Your task to perform on an android device: remove spam from my inbox in the gmail app Image 0: 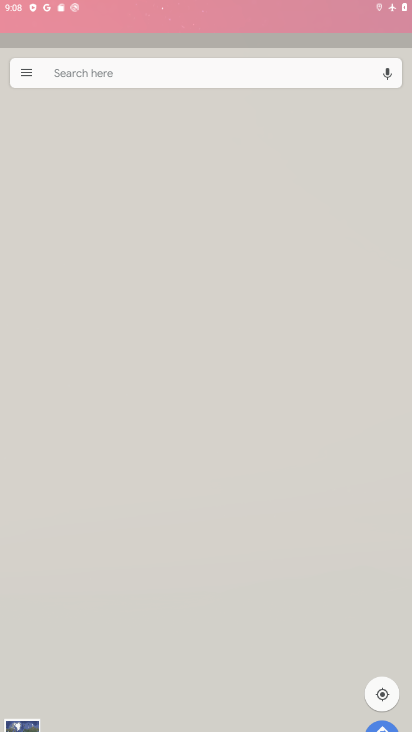
Step 0: press home button
Your task to perform on an android device: remove spam from my inbox in the gmail app Image 1: 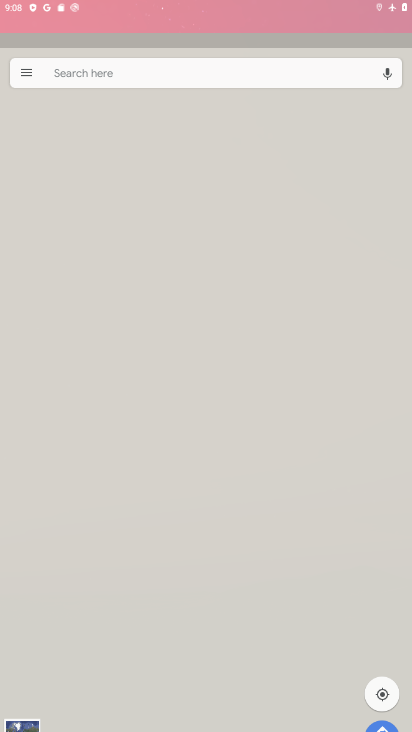
Step 1: click (257, 72)
Your task to perform on an android device: remove spam from my inbox in the gmail app Image 2: 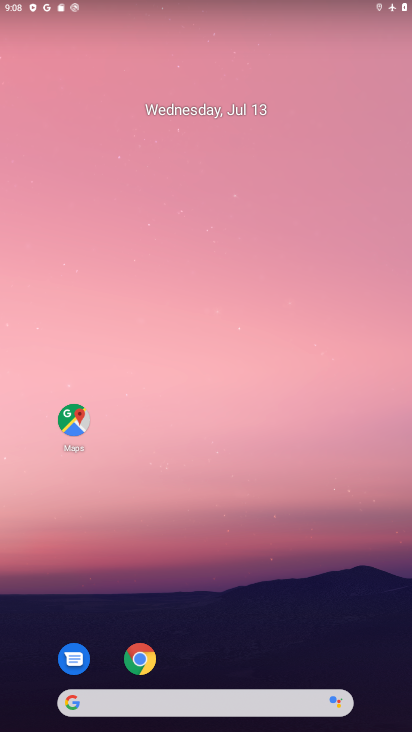
Step 2: drag from (219, 647) to (187, 276)
Your task to perform on an android device: remove spam from my inbox in the gmail app Image 3: 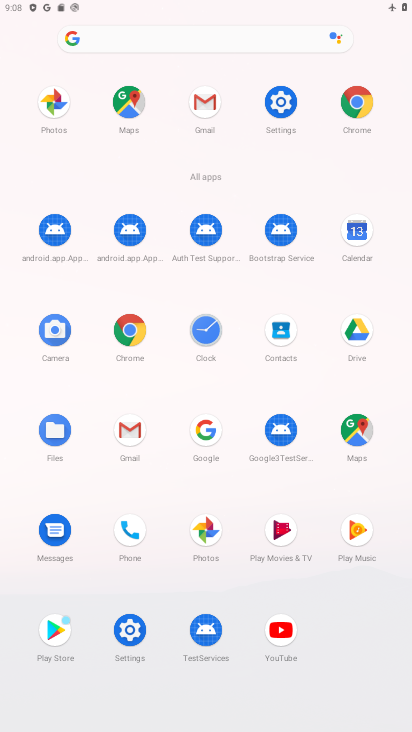
Step 3: click (125, 437)
Your task to perform on an android device: remove spam from my inbox in the gmail app Image 4: 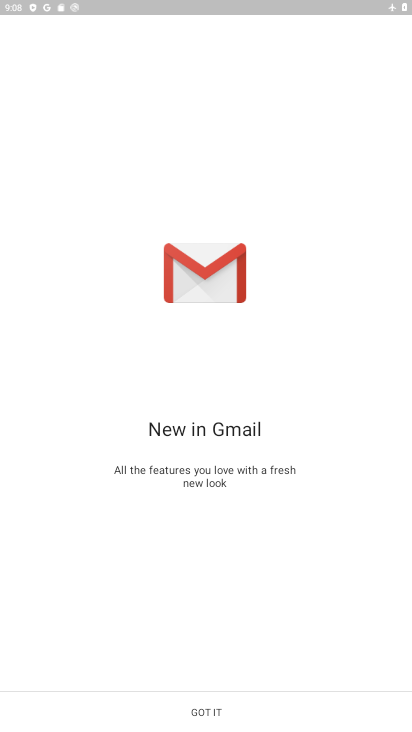
Step 4: click (212, 714)
Your task to perform on an android device: remove spam from my inbox in the gmail app Image 5: 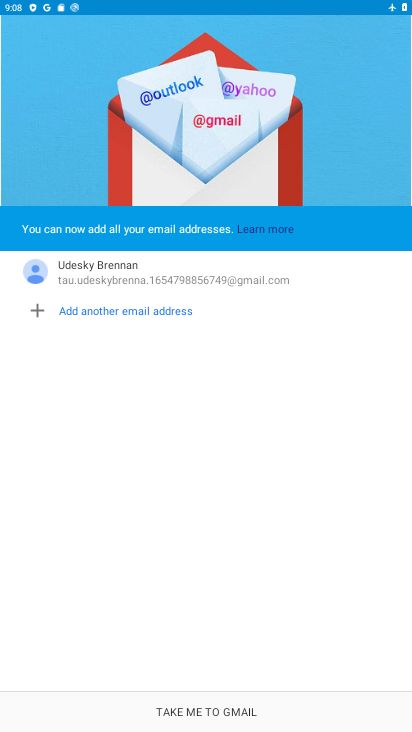
Step 5: click (212, 714)
Your task to perform on an android device: remove spam from my inbox in the gmail app Image 6: 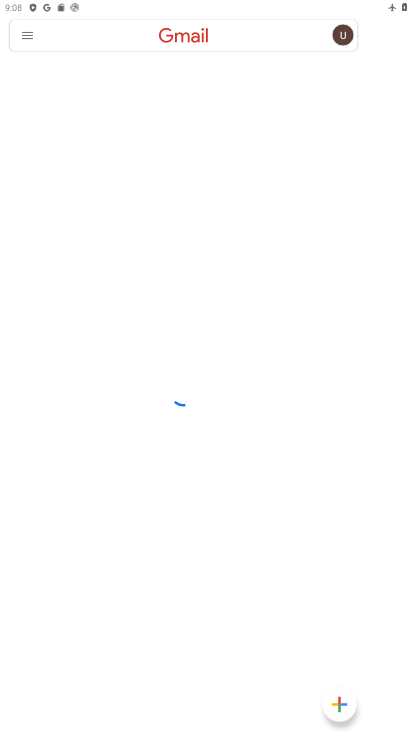
Step 6: click (25, 35)
Your task to perform on an android device: remove spam from my inbox in the gmail app Image 7: 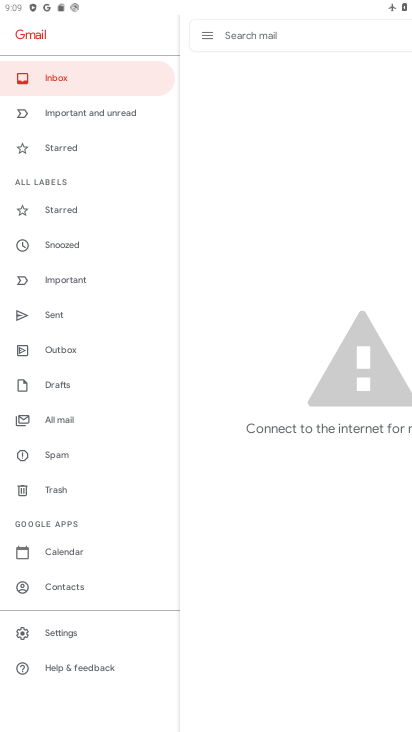
Step 7: click (67, 457)
Your task to perform on an android device: remove spam from my inbox in the gmail app Image 8: 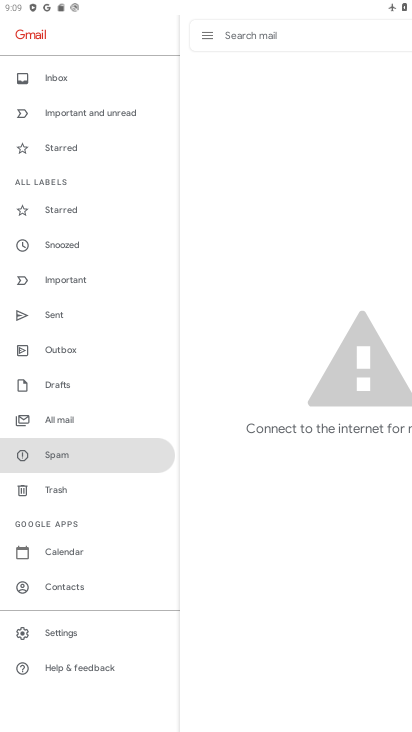
Step 8: task complete